Your task to perform on an android device: turn on wifi Image 0: 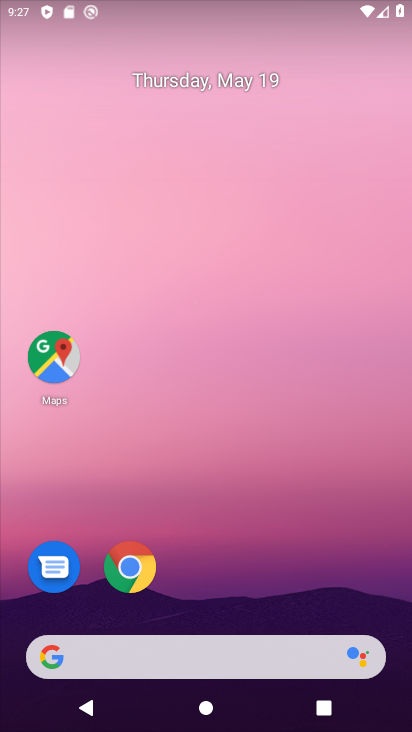
Step 0: press home button
Your task to perform on an android device: turn on wifi Image 1: 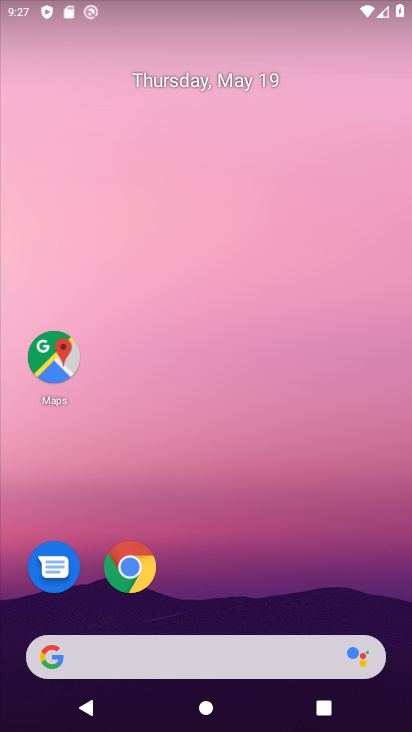
Step 1: task complete